Your task to perform on an android device: Do I have any events this weekend? Image 0: 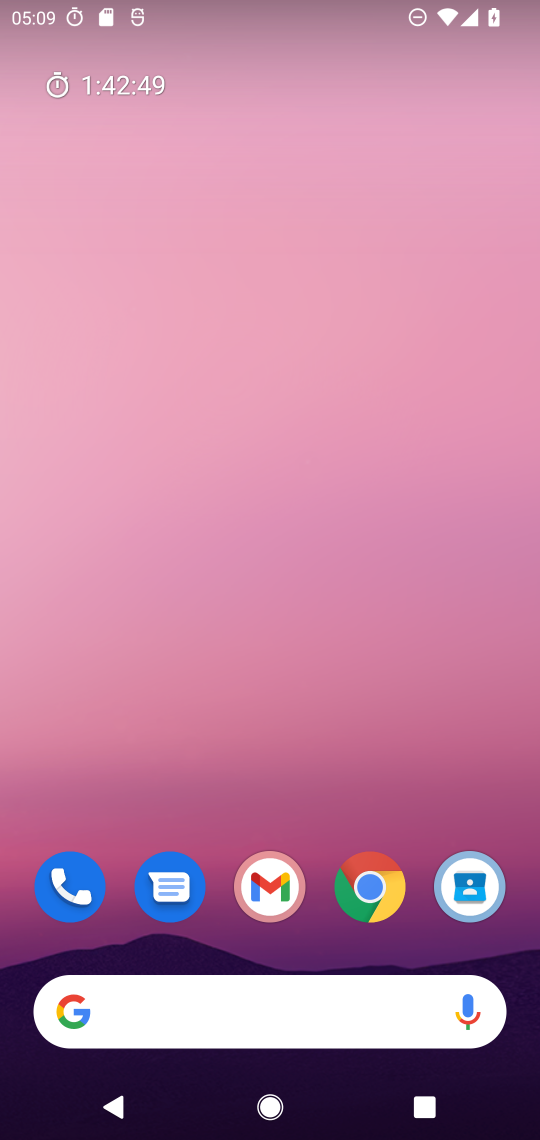
Step 0: press home button
Your task to perform on an android device: Do I have any events this weekend? Image 1: 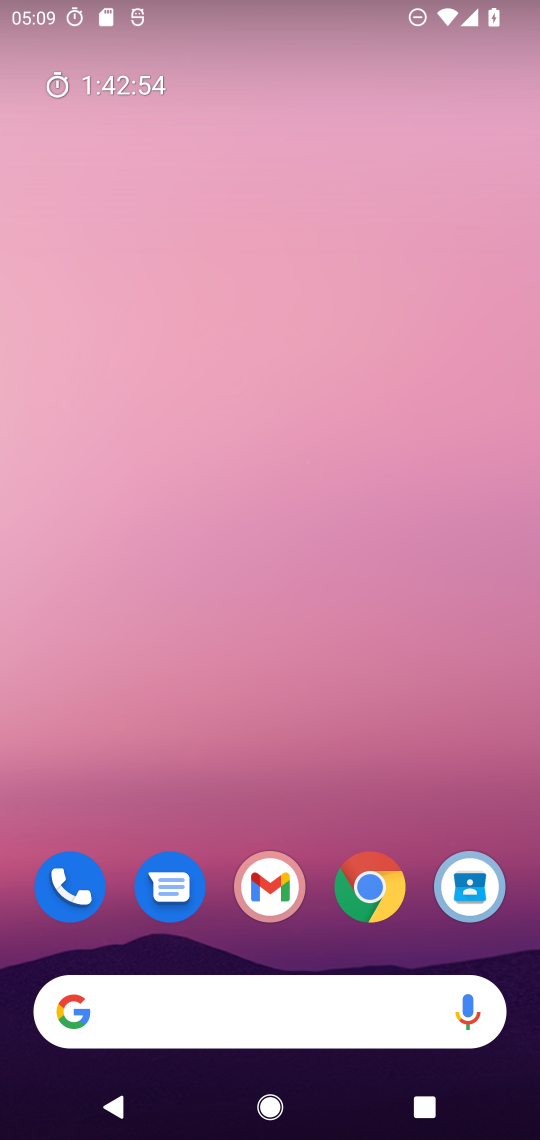
Step 1: drag from (423, 783) to (453, 384)
Your task to perform on an android device: Do I have any events this weekend? Image 2: 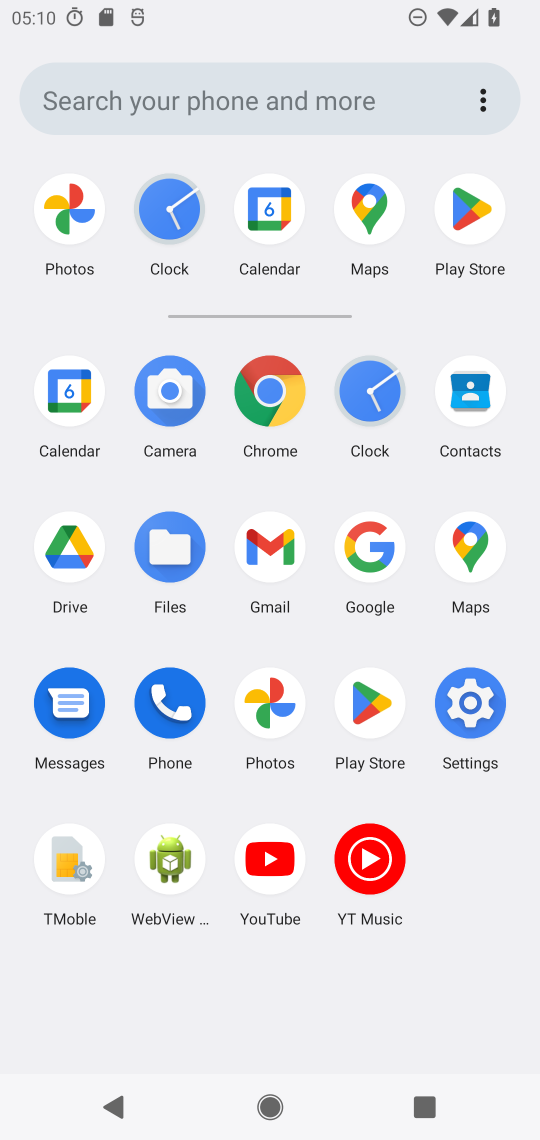
Step 2: click (62, 393)
Your task to perform on an android device: Do I have any events this weekend? Image 3: 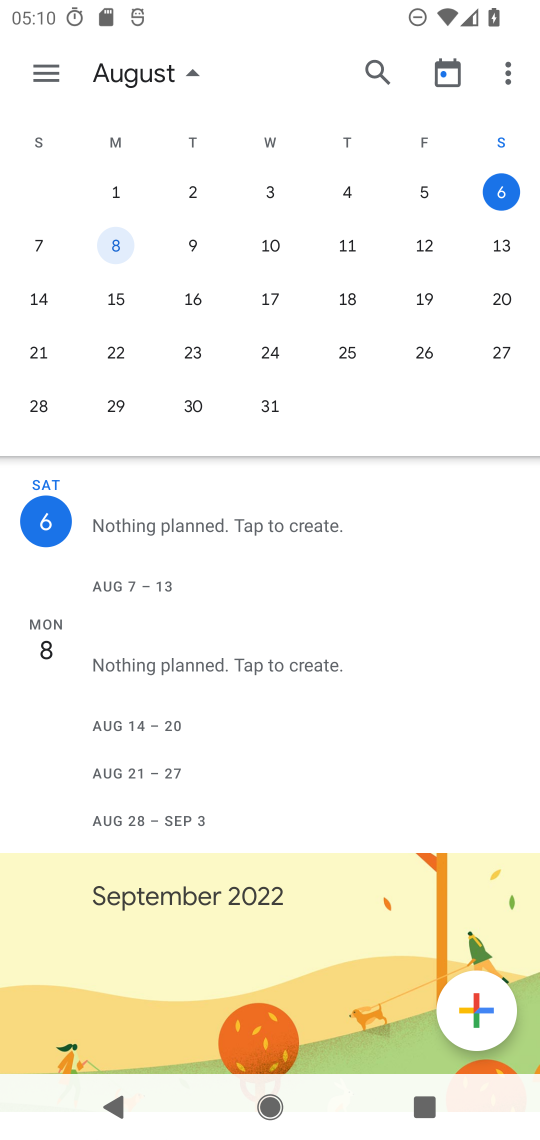
Step 3: task complete